Your task to perform on an android device: check data usage Image 0: 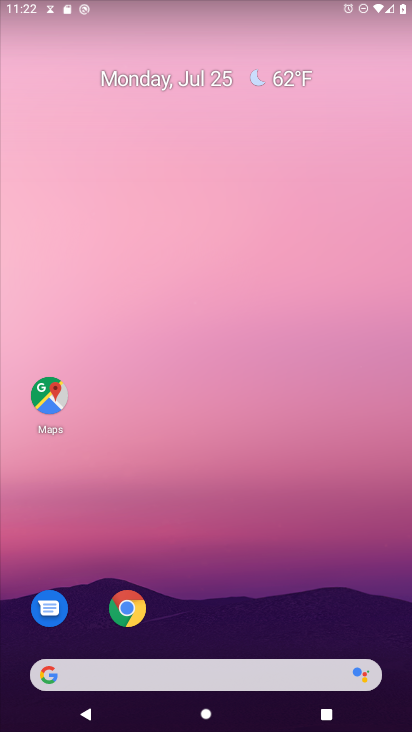
Step 0: drag from (201, 670) to (213, 147)
Your task to perform on an android device: check data usage Image 1: 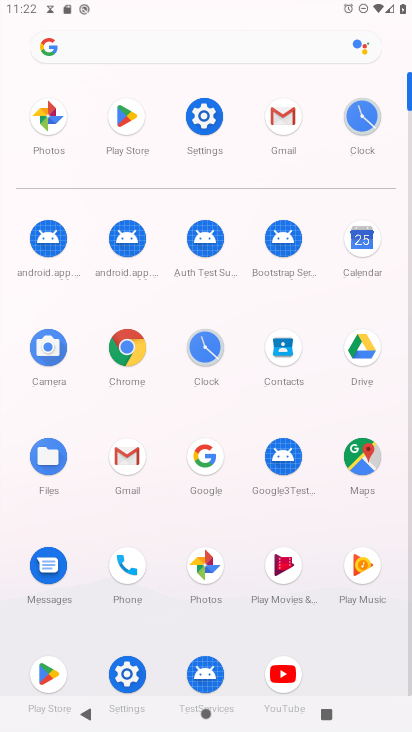
Step 1: click (202, 118)
Your task to perform on an android device: check data usage Image 2: 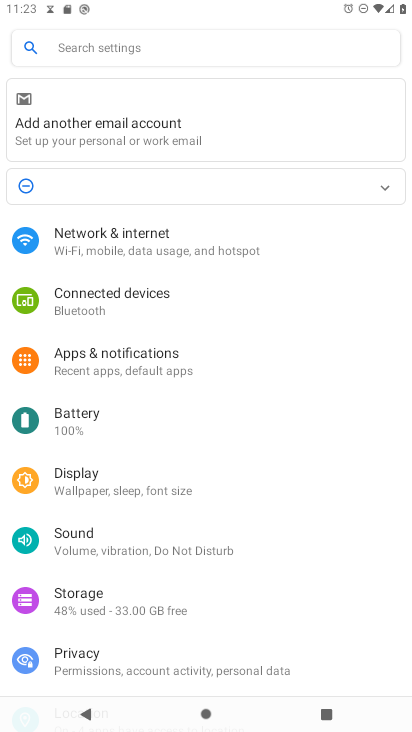
Step 2: click (146, 249)
Your task to perform on an android device: check data usage Image 3: 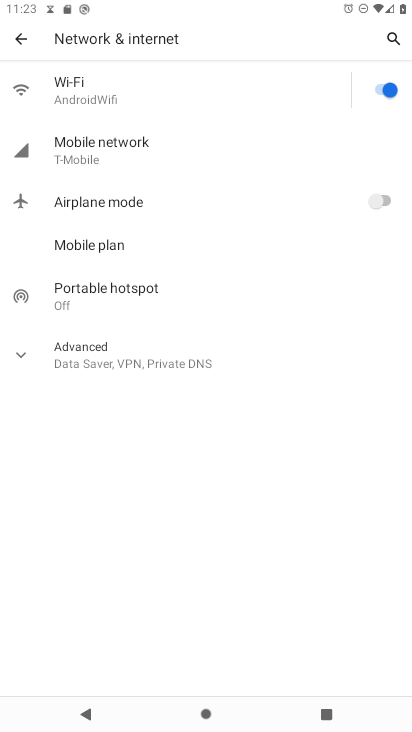
Step 3: click (101, 147)
Your task to perform on an android device: check data usage Image 4: 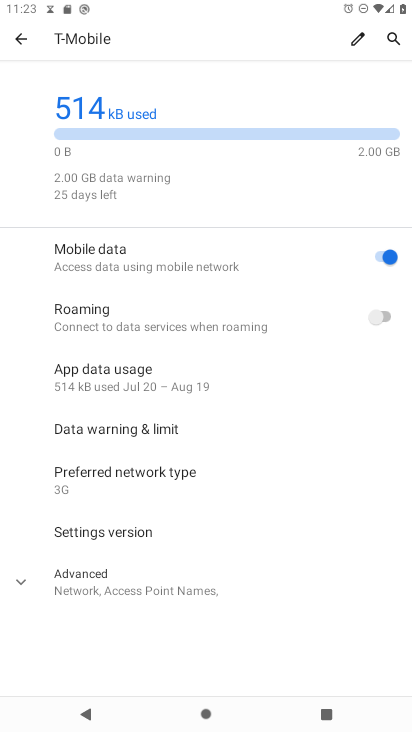
Step 4: task complete